Your task to perform on an android device: set the timer Image 0: 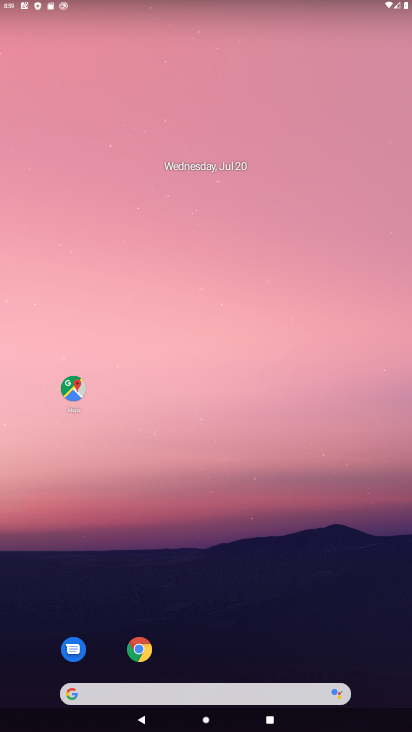
Step 0: drag from (247, 666) to (224, 8)
Your task to perform on an android device: set the timer Image 1: 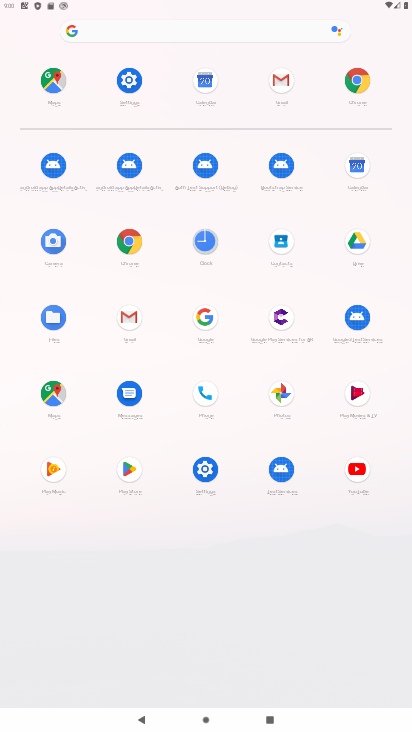
Step 1: click (134, 106)
Your task to perform on an android device: set the timer Image 2: 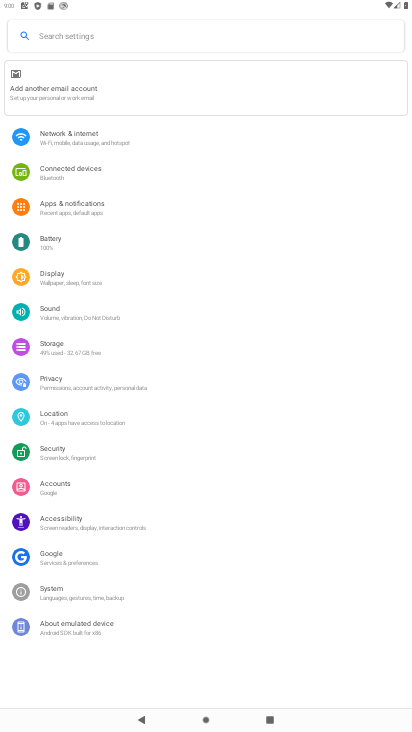
Step 2: task complete